Your task to perform on an android device: clear all cookies in the chrome app Image 0: 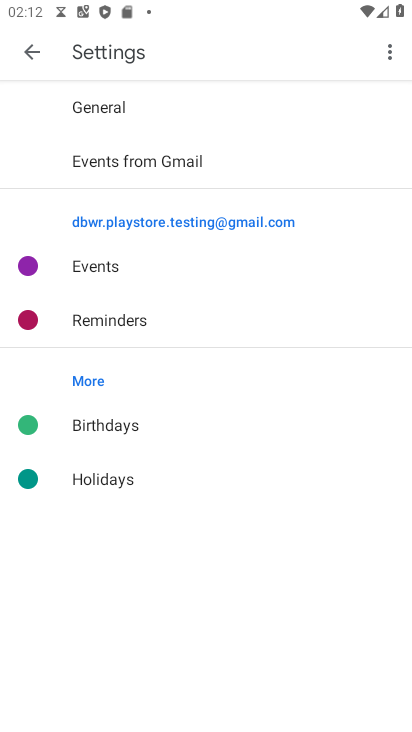
Step 0: press home button
Your task to perform on an android device: clear all cookies in the chrome app Image 1: 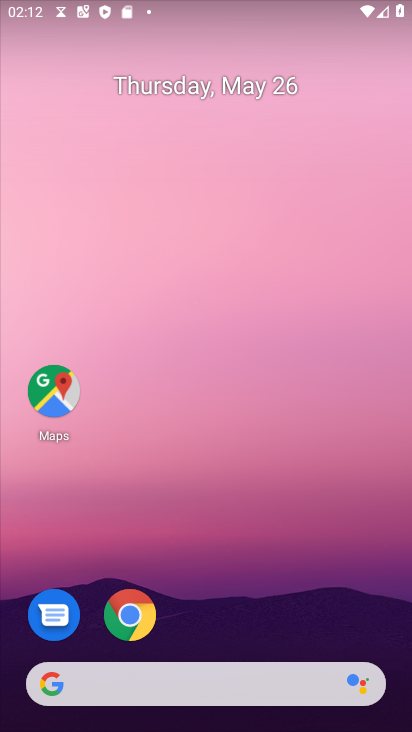
Step 1: click (127, 611)
Your task to perform on an android device: clear all cookies in the chrome app Image 2: 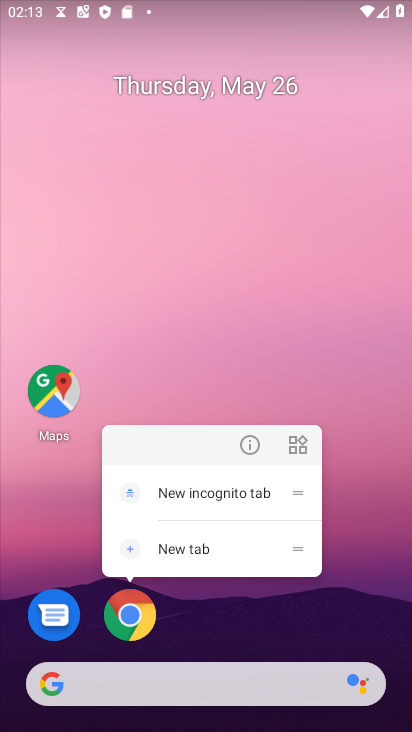
Step 2: click (127, 609)
Your task to perform on an android device: clear all cookies in the chrome app Image 3: 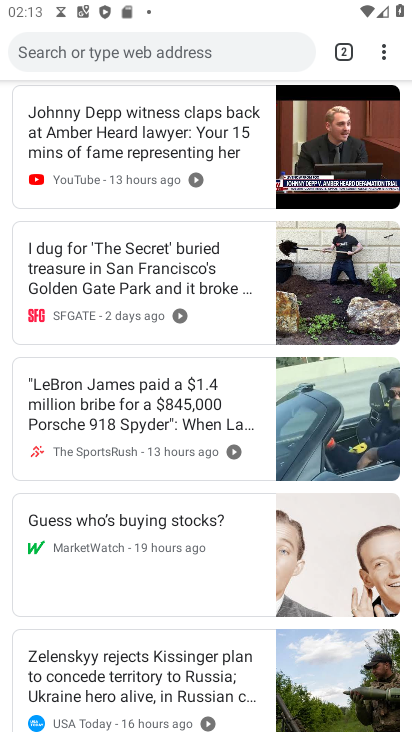
Step 3: click (383, 46)
Your task to perform on an android device: clear all cookies in the chrome app Image 4: 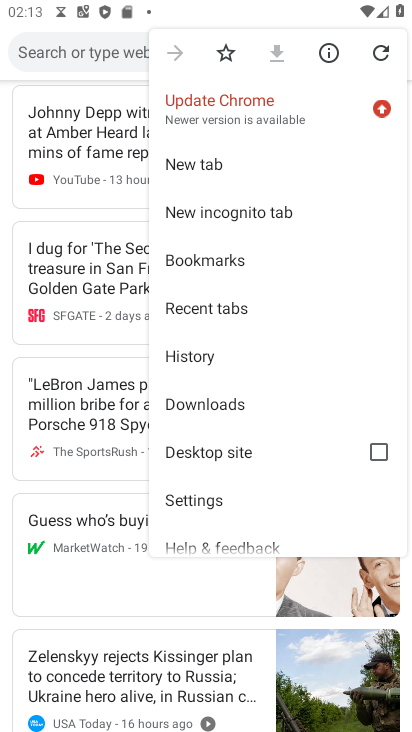
Step 4: click (221, 353)
Your task to perform on an android device: clear all cookies in the chrome app Image 5: 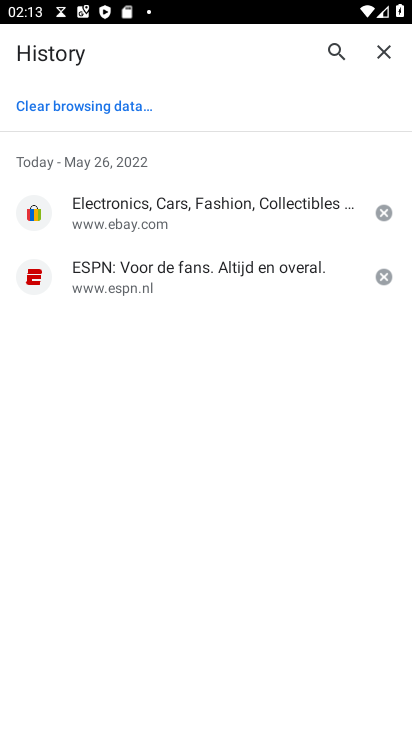
Step 5: click (83, 105)
Your task to perform on an android device: clear all cookies in the chrome app Image 6: 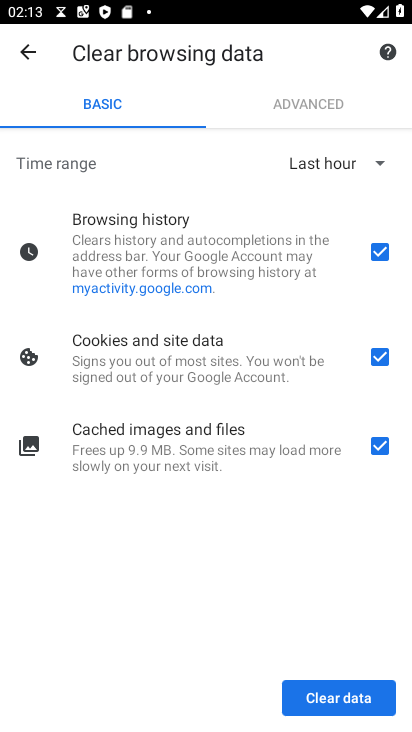
Step 6: click (381, 157)
Your task to perform on an android device: clear all cookies in the chrome app Image 7: 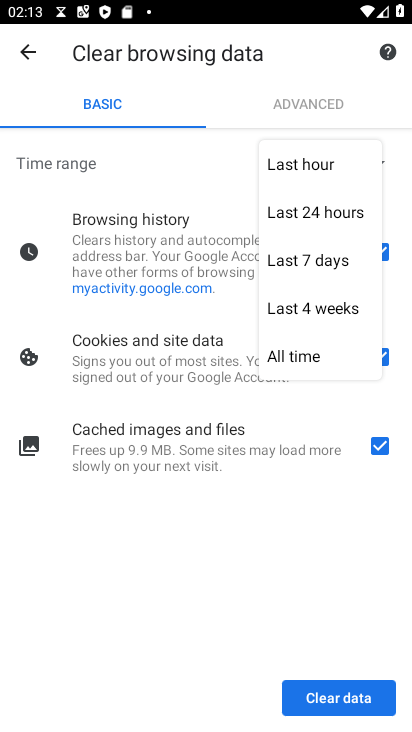
Step 7: click (319, 354)
Your task to perform on an android device: clear all cookies in the chrome app Image 8: 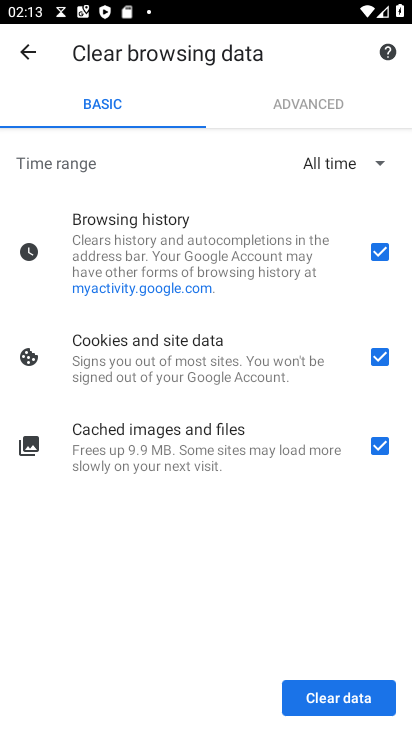
Step 8: click (337, 697)
Your task to perform on an android device: clear all cookies in the chrome app Image 9: 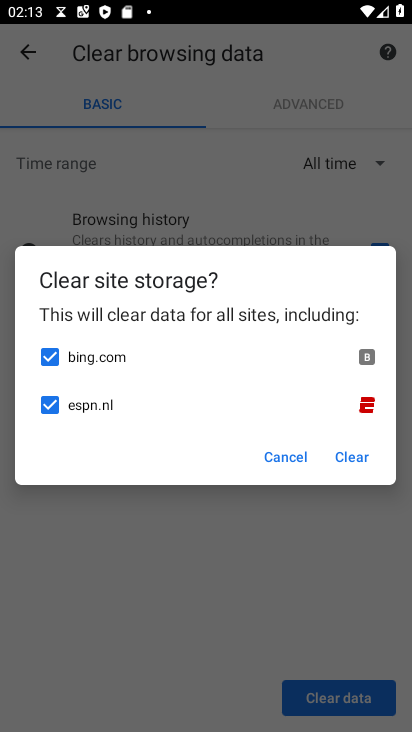
Step 9: click (352, 452)
Your task to perform on an android device: clear all cookies in the chrome app Image 10: 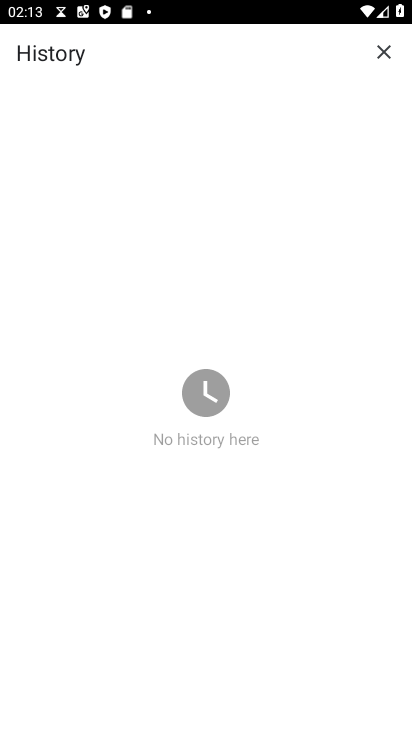
Step 10: task complete